Your task to perform on an android device: stop showing notifications on the lock screen Image 0: 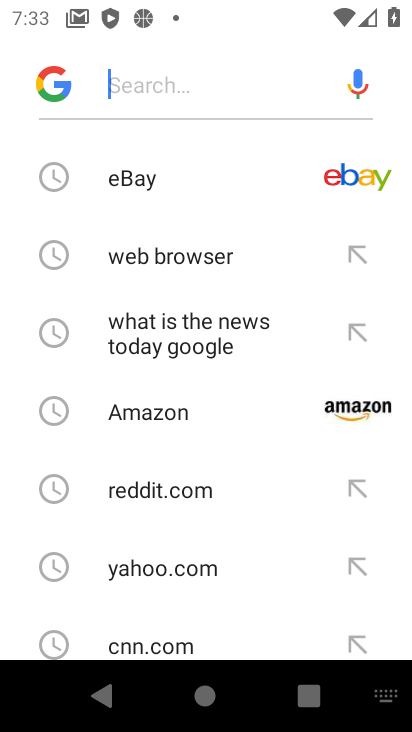
Step 0: press back button
Your task to perform on an android device: stop showing notifications on the lock screen Image 1: 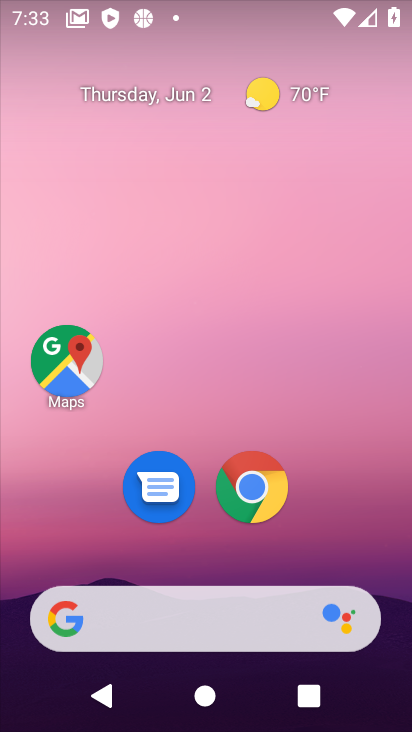
Step 1: drag from (201, 569) to (397, 409)
Your task to perform on an android device: stop showing notifications on the lock screen Image 2: 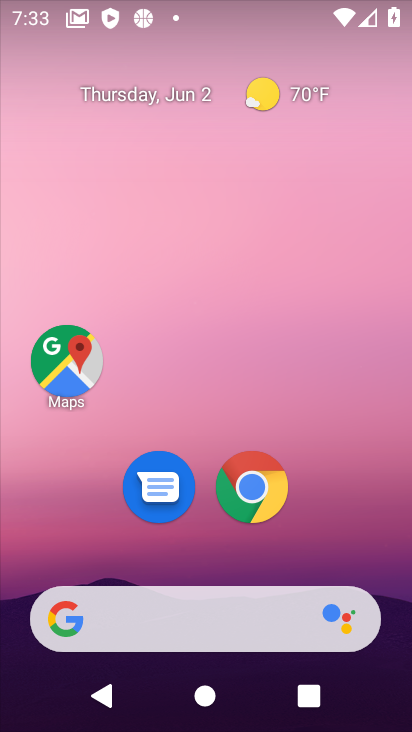
Step 2: drag from (241, 554) to (219, 4)
Your task to perform on an android device: stop showing notifications on the lock screen Image 3: 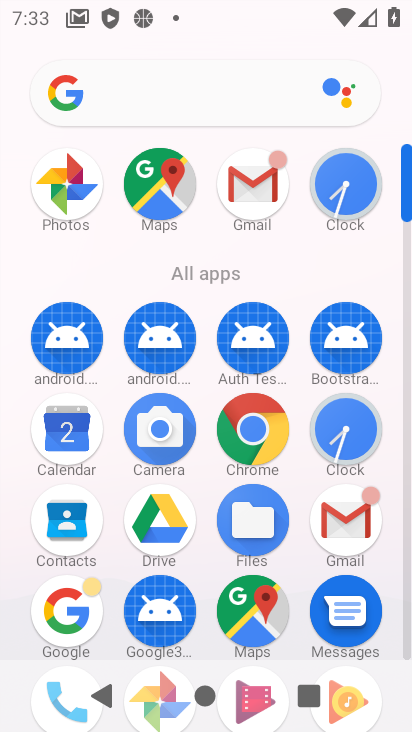
Step 3: drag from (210, 511) to (210, 22)
Your task to perform on an android device: stop showing notifications on the lock screen Image 4: 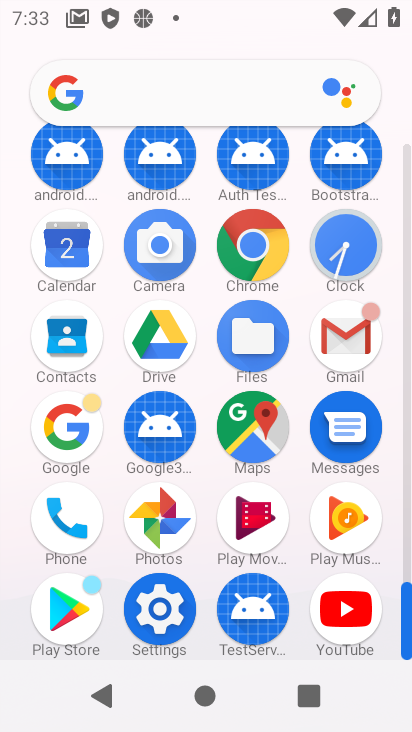
Step 4: click (148, 638)
Your task to perform on an android device: stop showing notifications on the lock screen Image 5: 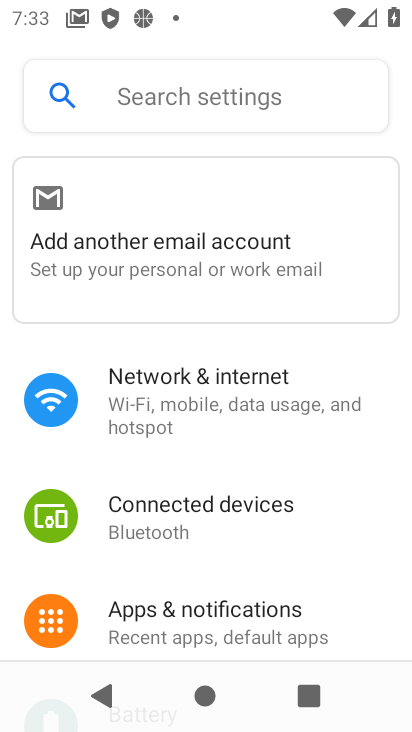
Step 5: click (202, 613)
Your task to perform on an android device: stop showing notifications on the lock screen Image 6: 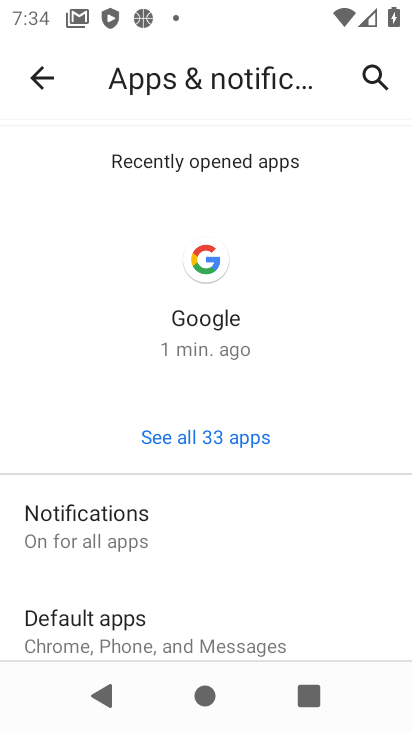
Step 6: click (174, 536)
Your task to perform on an android device: stop showing notifications on the lock screen Image 7: 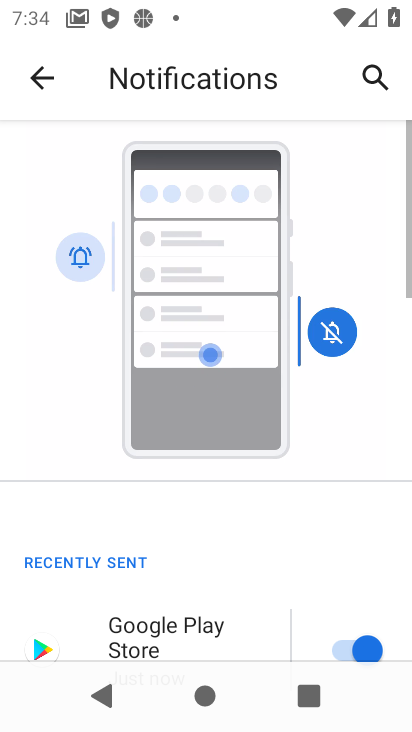
Step 7: drag from (174, 535) to (135, 0)
Your task to perform on an android device: stop showing notifications on the lock screen Image 8: 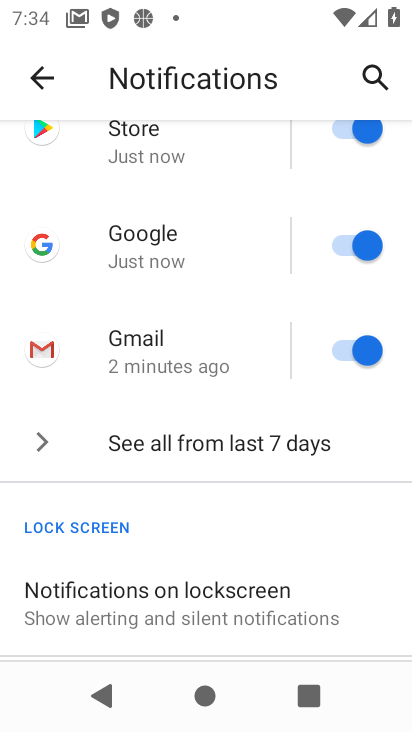
Step 8: click (167, 589)
Your task to perform on an android device: stop showing notifications on the lock screen Image 9: 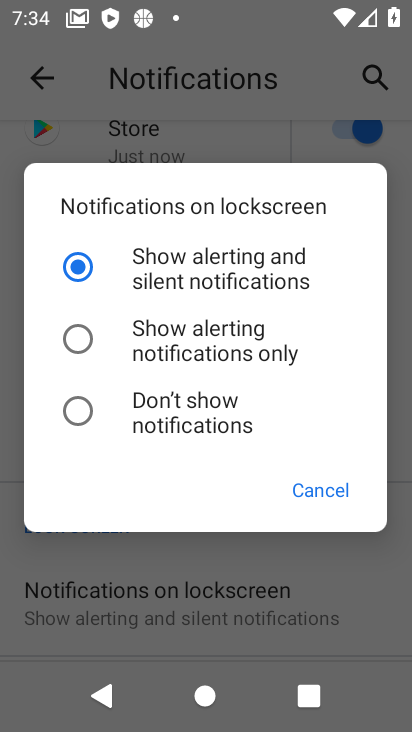
Step 9: click (152, 421)
Your task to perform on an android device: stop showing notifications on the lock screen Image 10: 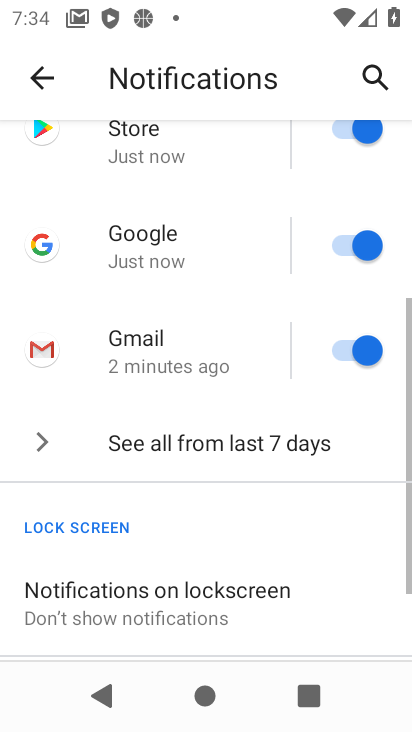
Step 10: task complete